Your task to perform on an android device: Go to network settings Image 0: 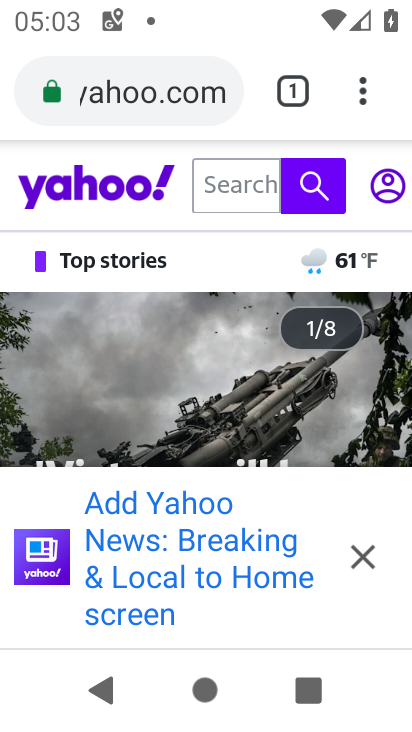
Step 0: drag from (231, 18) to (309, 424)
Your task to perform on an android device: Go to network settings Image 1: 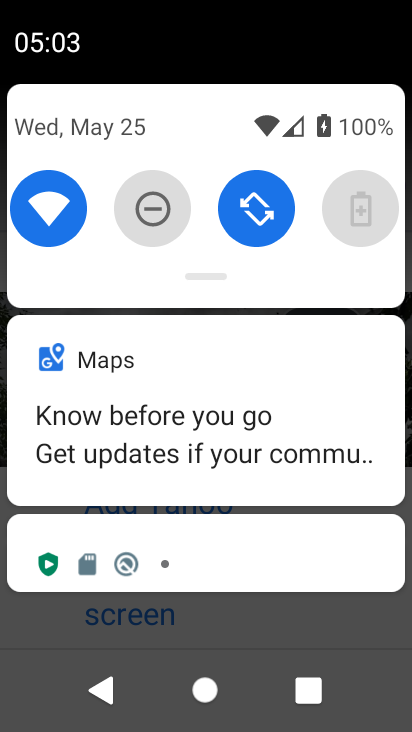
Step 1: drag from (197, 155) to (187, 574)
Your task to perform on an android device: Go to network settings Image 2: 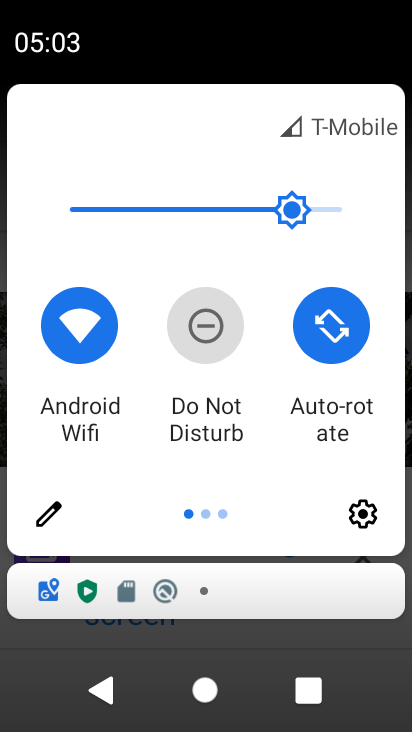
Step 2: drag from (371, 472) to (22, 468)
Your task to perform on an android device: Go to network settings Image 3: 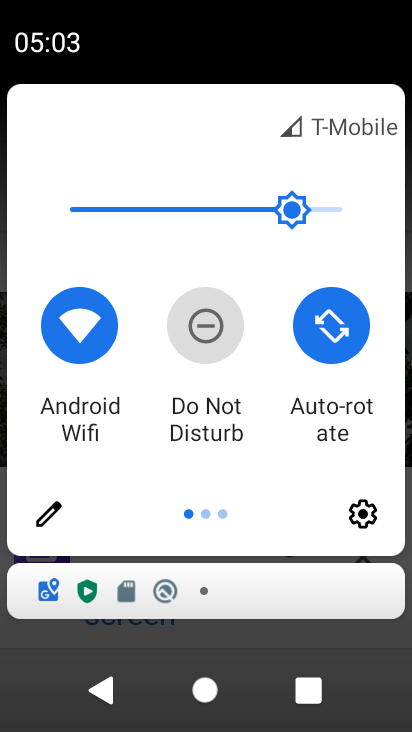
Step 3: drag from (402, 485) to (91, 488)
Your task to perform on an android device: Go to network settings Image 4: 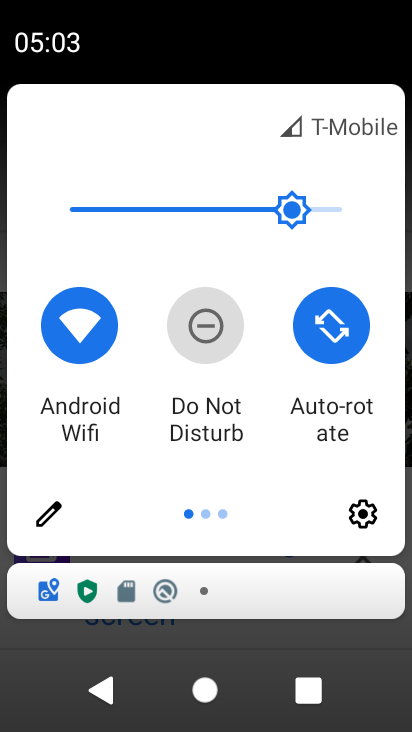
Step 4: drag from (351, 464) to (62, 475)
Your task to perform on an android device: Go to network settings Image 5: 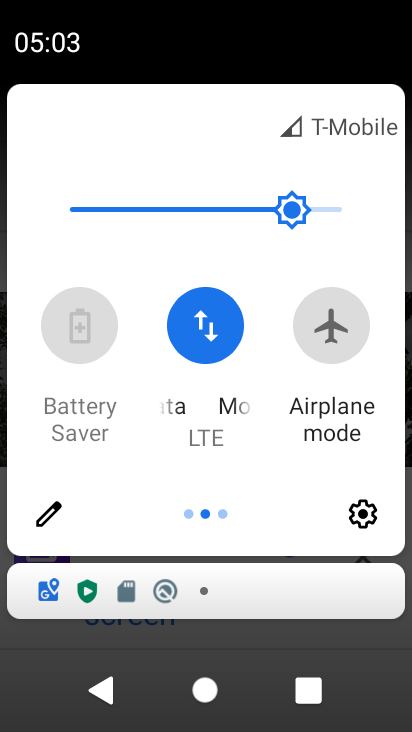
Step 5: click (227, 325)
Your task to perform on an android device: Go to network settings Image 6: 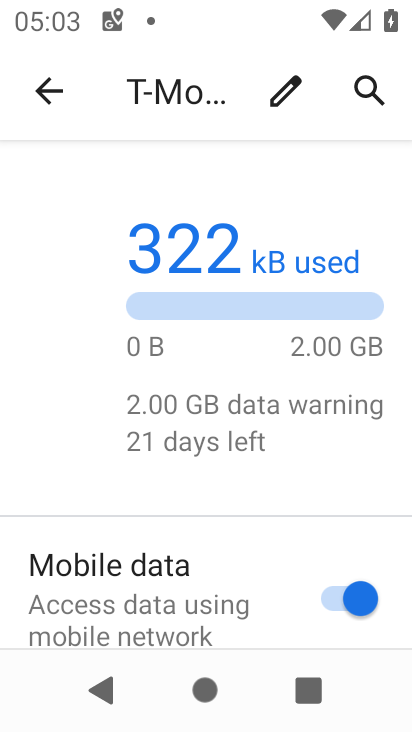
Step 6: task complete